Your task to perform on an android device: open a new tab in the chrome app Image 0: 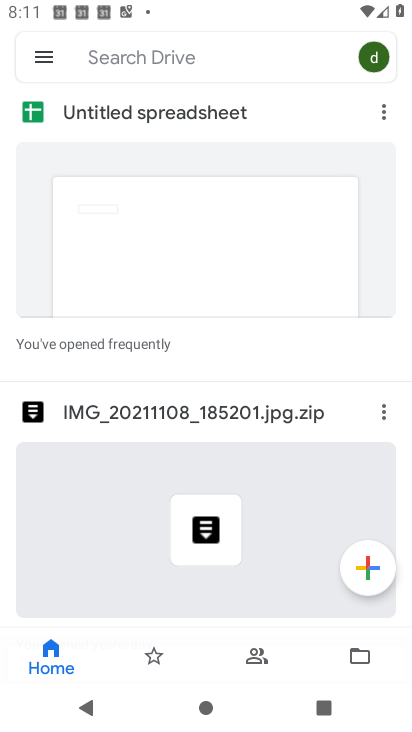
Step 0: press home button
Your task to perform on an android device: open a new tab in the chrome app Image 1: 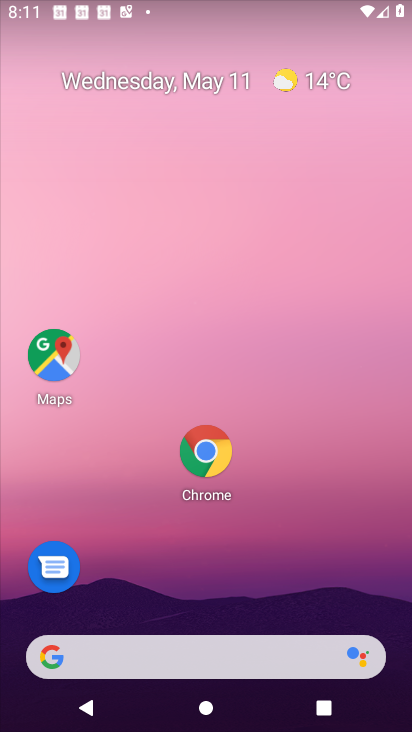
Step 1: click (210, 461)
Your task to perform on an android device: open a new tab in the chrome app Image 2: 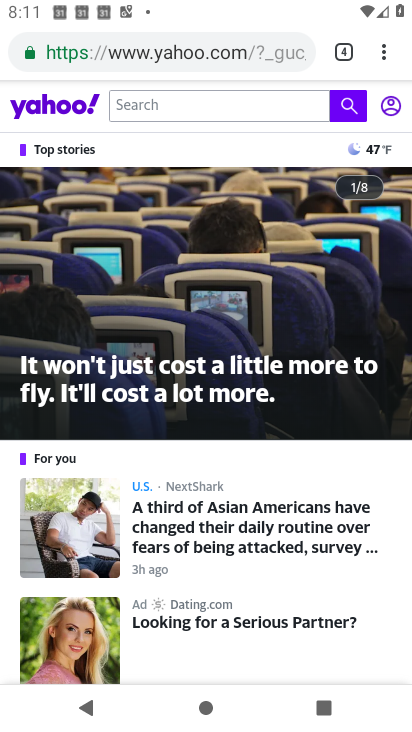
Step 2: task complete